Your task to perform on an android device: check battery use Image 0: 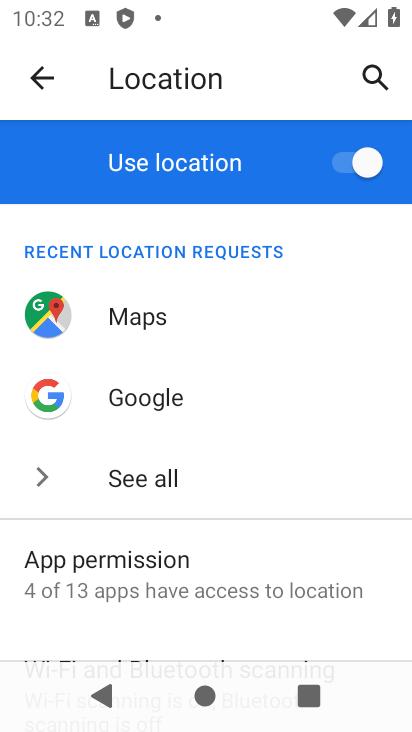
Step 0: press home button
Your task to perform on an android device: check battery use Image 1: 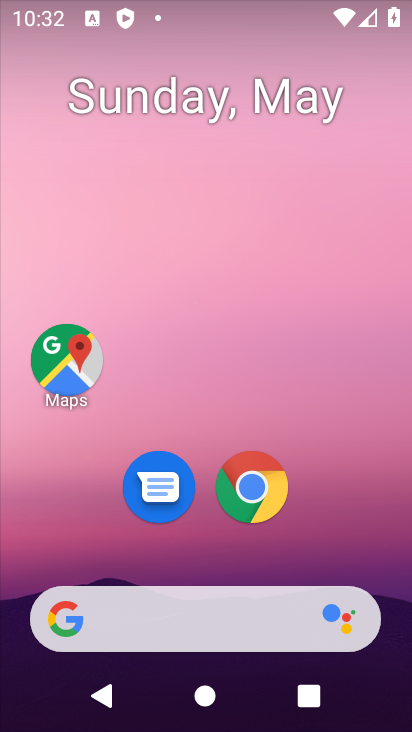
Step 1: drag from (140, 631) to (103, 142)
Your task to perform on an android device: check battery use Image 2: 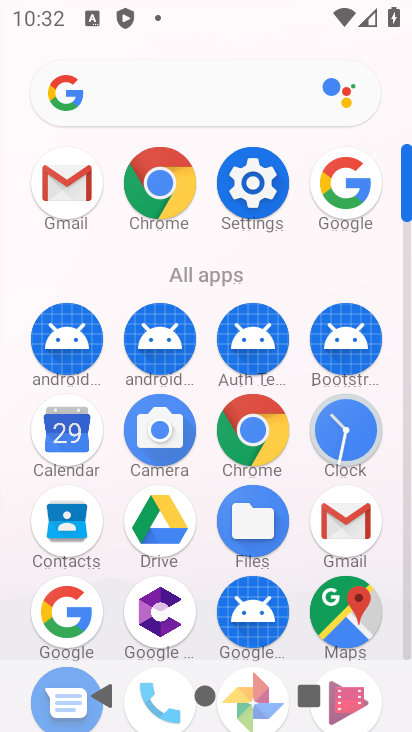
Step 2: click (250, 204)
Your task to perform on an android device: check battery use Image 3: 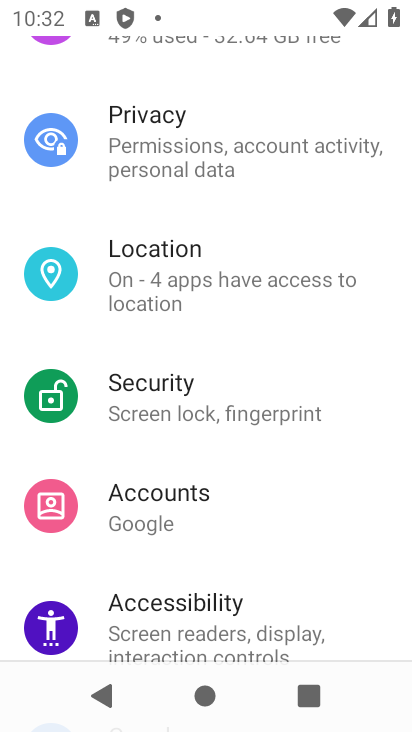
Step 3: drag from (248, 266) to (248, 579)
Your task to perform on an android device: check battery use Image 4: 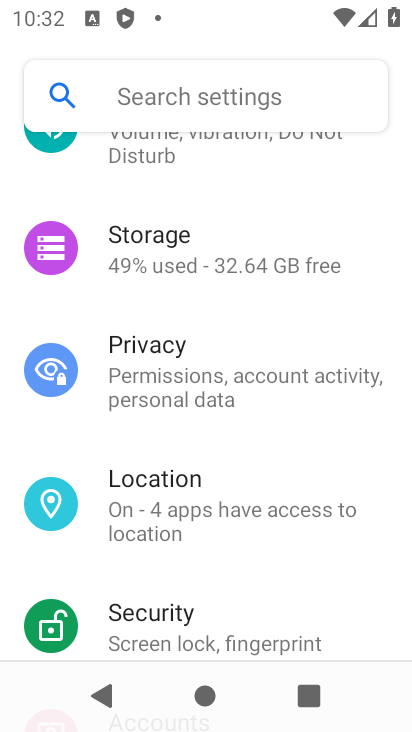
Step 4: drag from (212, 342) to (212, 500)
Your task to perform on an android device: check battery use Image 5: 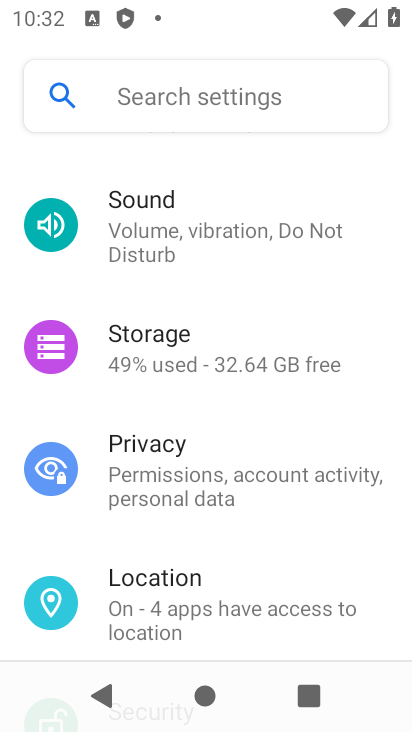
Step 5: drag from (215, 263) to (230, 579)
Your task to perform on an android device: check battery use Image 6: 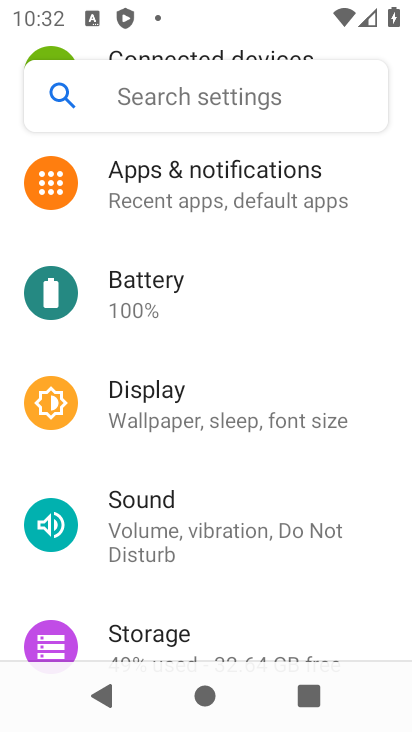
Step 6: click (231, 311)
Your task to perform on an android device: check battery use Image 7: 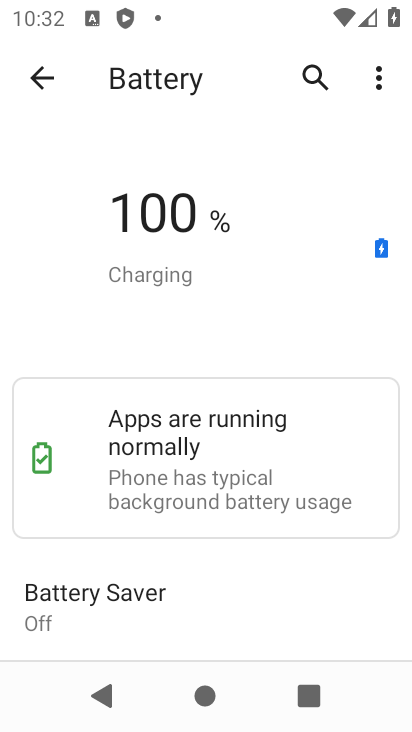
Step 7: task complete